Your task to perform on an android device: turn pop-ups off in chrome Image 0: 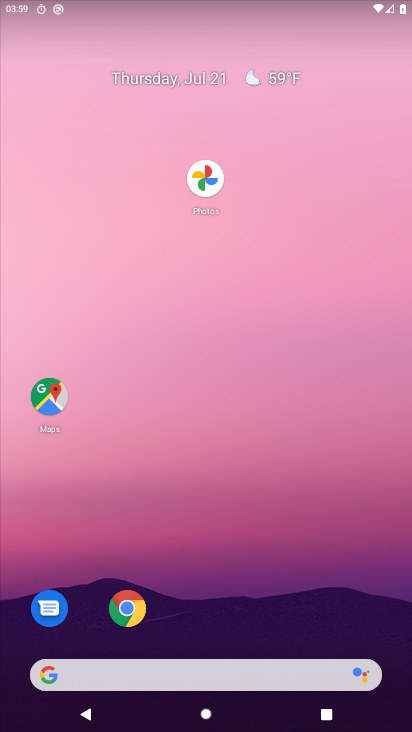
Step 0: click (127, 600)
Your task to perform on an android device: turn pop-ups off in chrome Image 1: 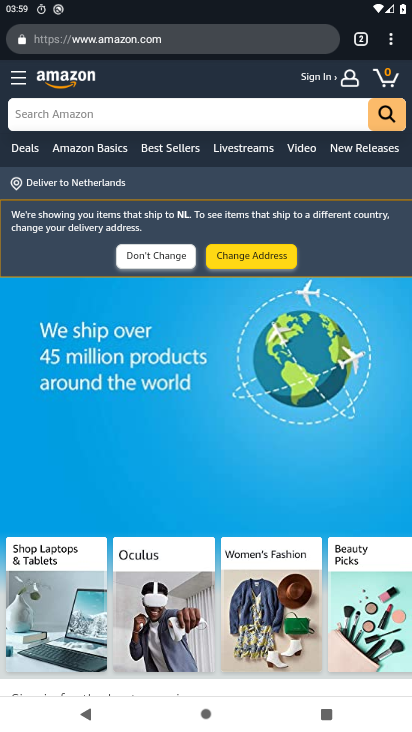
Step 1: click (390, 38)
Your task to perform on an android device: turn pop-ups off in chrome Image 2: 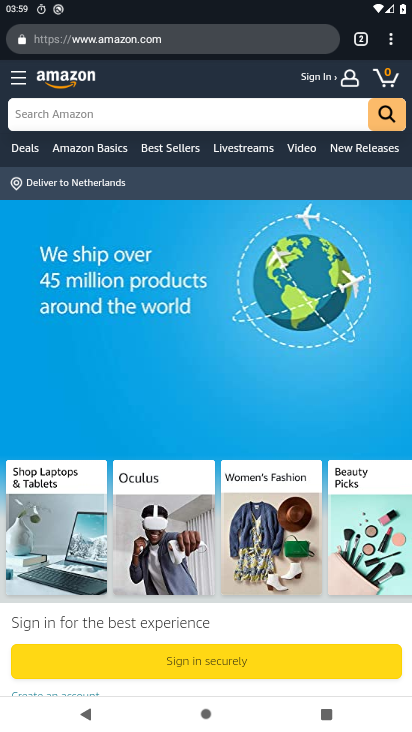
Step 2: click (392, 44)
Your task to perform on an android device: turn pop-ups off in chrome Image 3: 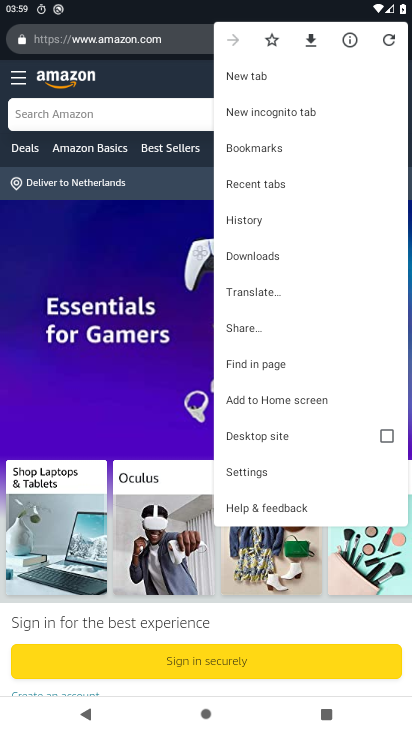
Step 3: click (273, 470)
Your task to perform on an android device: turn pop-ups off in chrome Image 4: 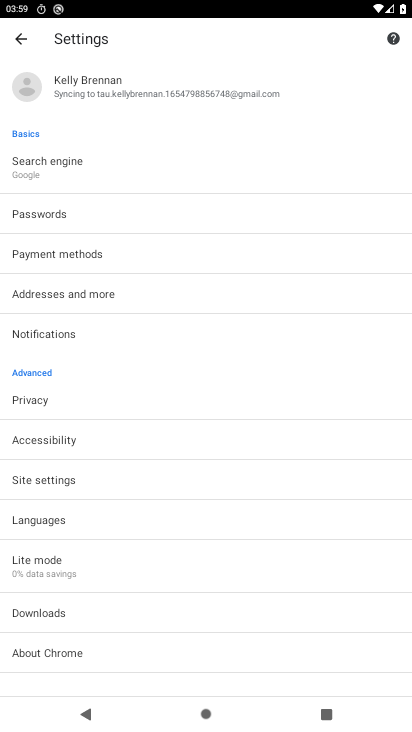
Step 4: click (87, 478)
Your task to perform on an android device: turn pop-ups off in chrome Image 5: 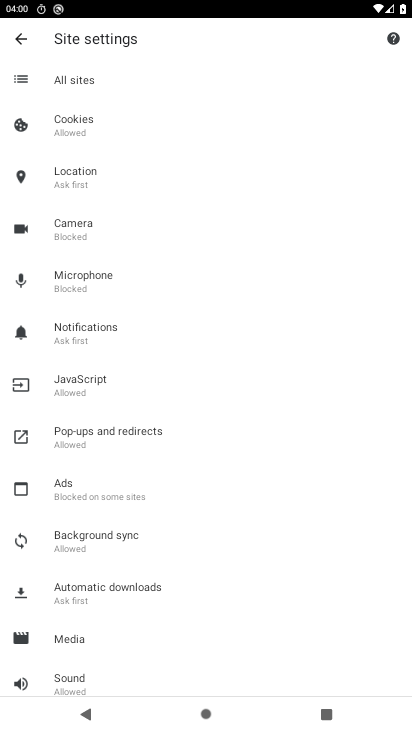
Step 5: click (95, 435)
Your task to perform on an android device: turn pop-ups off in chrome Image 6: 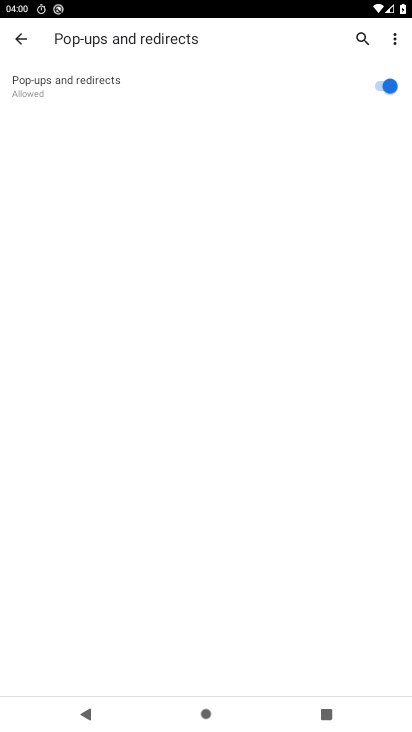
Step 6: click (378, 85)
Your task to perform on an android device: turn pop-ups off in chrome Image 7: 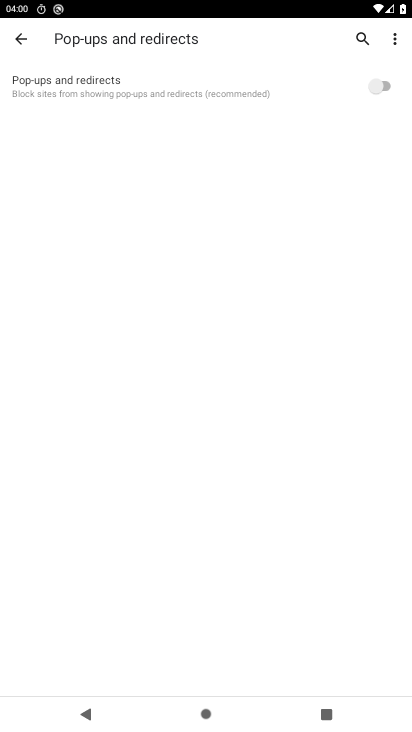
Step 7: task complete